Your task to perform on an android device: turn off location history Image 0: 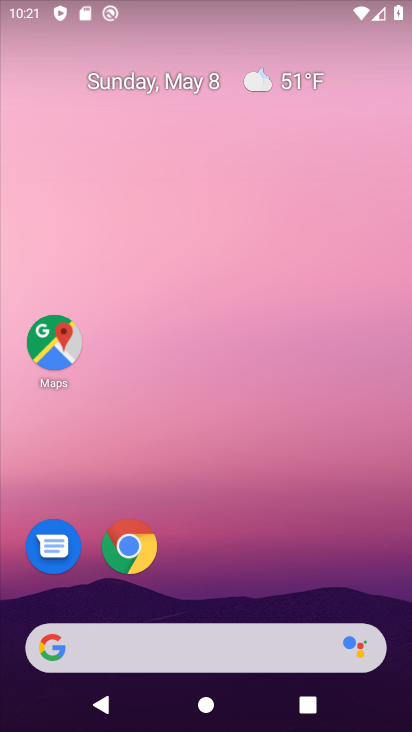
Step 0: drag from (247, 562) to (150, 137)
Your task to perform on an android device: turn off location history Image 1: 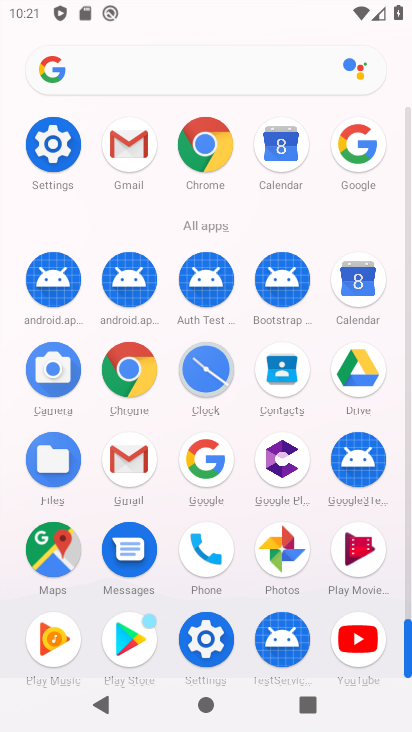
Step 1: click (54, 143)
Your task to perform on an android device: turn off location history Image 2: 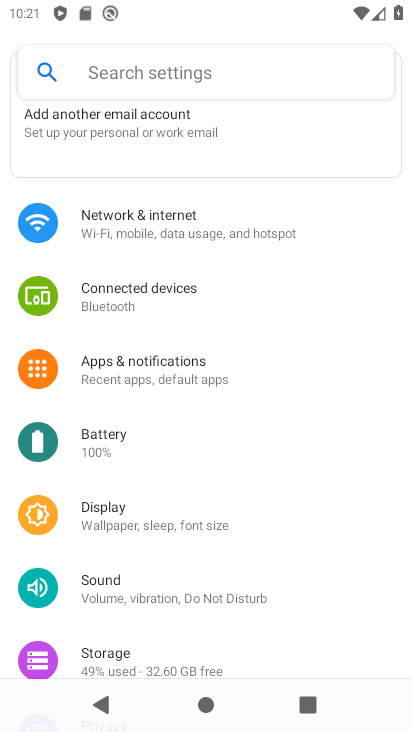
Step 2: drag from (199, 503) to (190, 391)
Your task to perform on an android device: turn off location history Image 3: 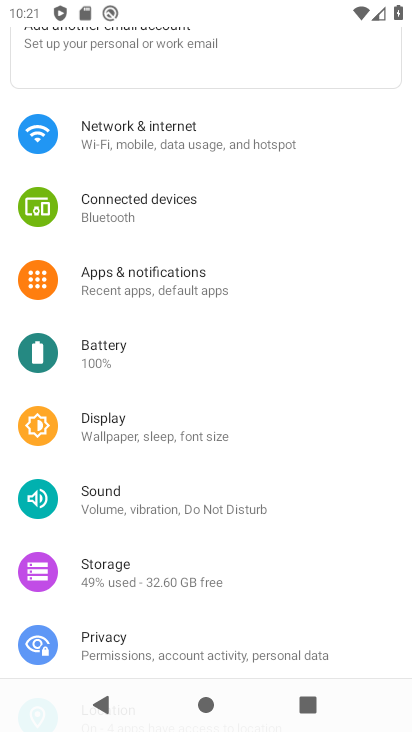
Step 3: drag from (184, 580) to (195, 448)
Your task to perform on an android device: turn off location history Image 4: 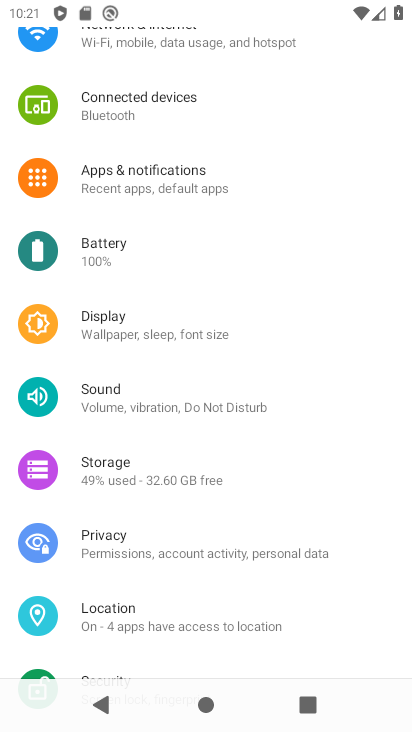
Step 4: drag from (171, 587) to (196, 456)
Your task to perform on an android device: turn off location history Image 5: 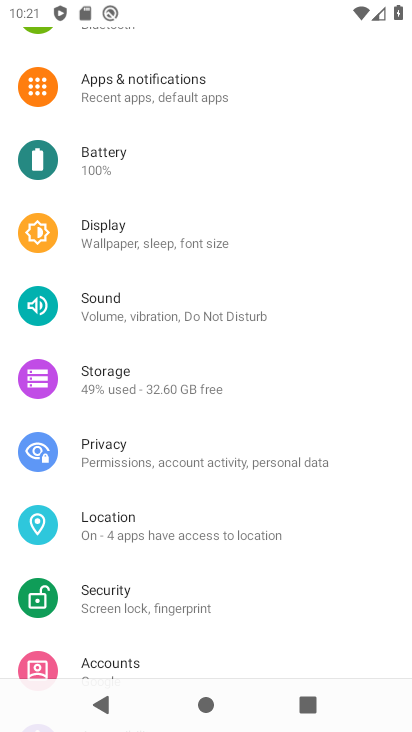
Step 5: click (178, 524)
Your task to perform on an android device: turn off location history Image 6: 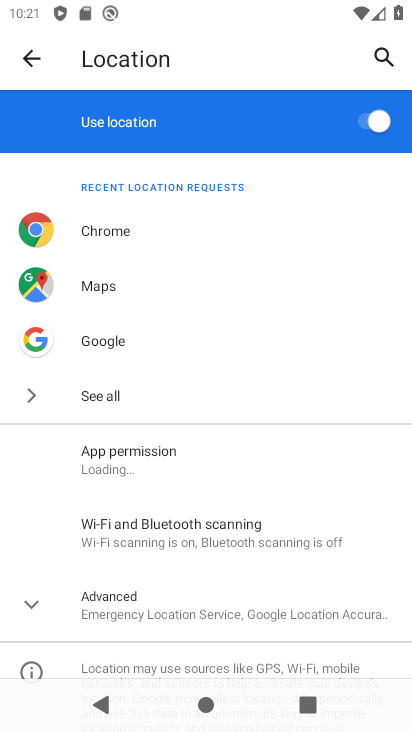
Step 6: drag from (176, 559) to (181, 480)
Your task to perform on an android device: turn off location history Image 7: 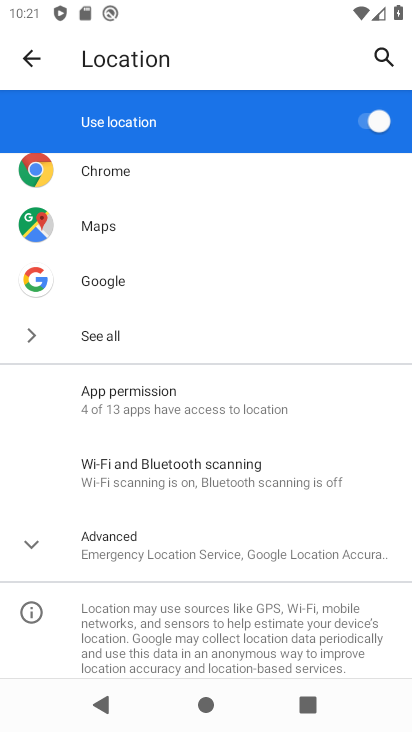
Step 7: click (158, 555)
Your task to perform on an android device: turn off location history Image 8: 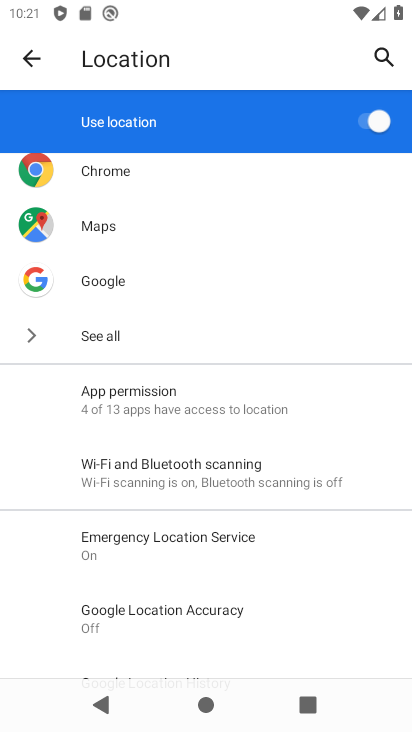
Step 8: drag from (155, 562) to (225, 405)
Your task to perform on an android device: turn off location history Image 9: 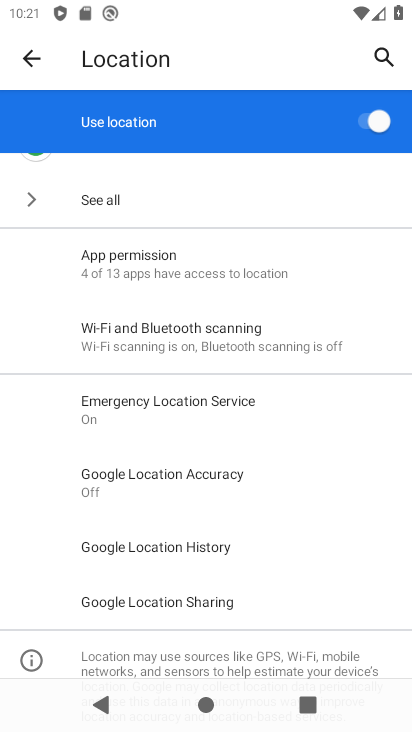
Step 9: click (150, 544)
Your task to perform on an android device: turn off location history Image 10: 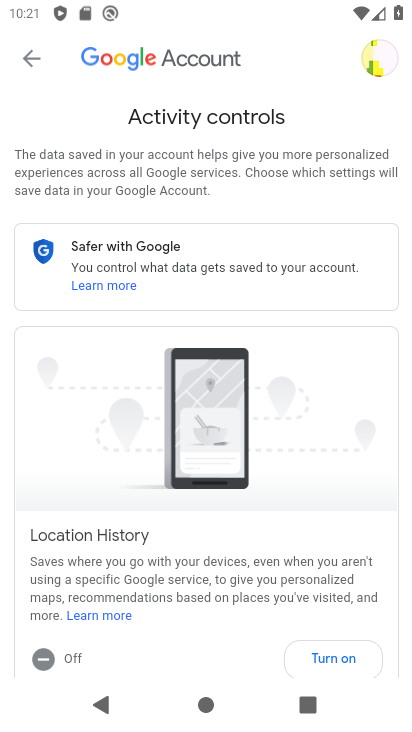
Step 10: task complete